Your task to perform on an android device: open the mobile data screen to see how much data has been used Image 0: 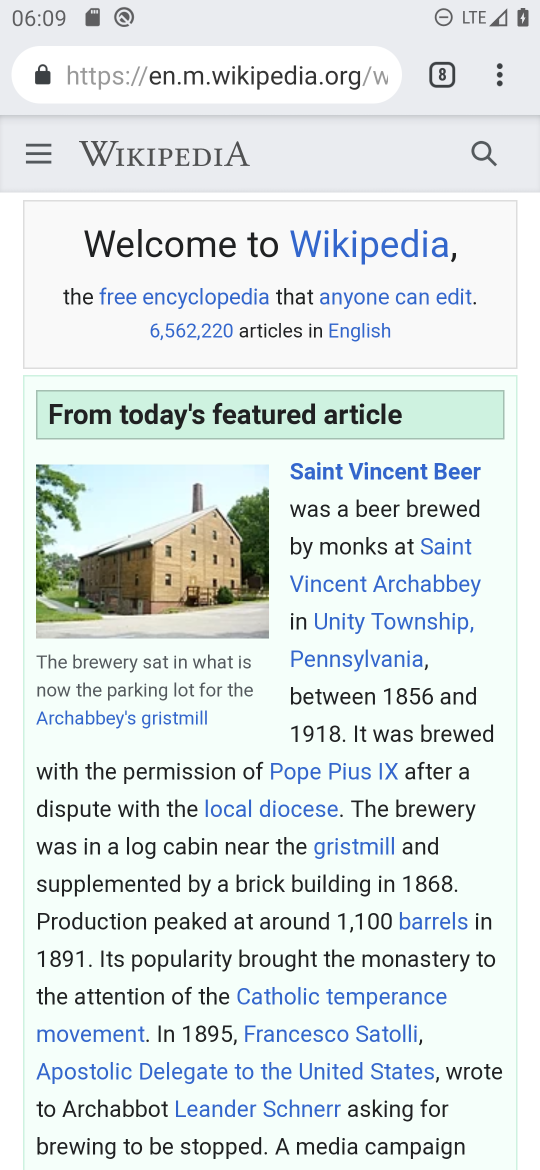
Step 0: press home button
Your task to perform on an android device: open the mobile data screen to see how much data has been used Image 1: 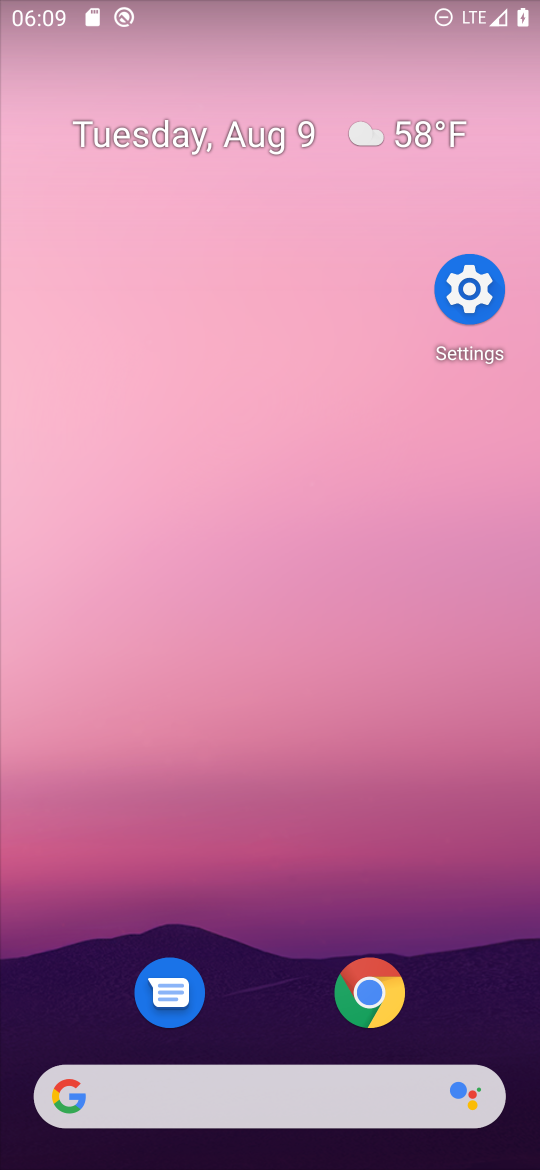
Step 1: drag from (280, 1106) to (304, 245)
Your task to perform on an android device: open the mobile data screen to see how much data has been used Image 2: 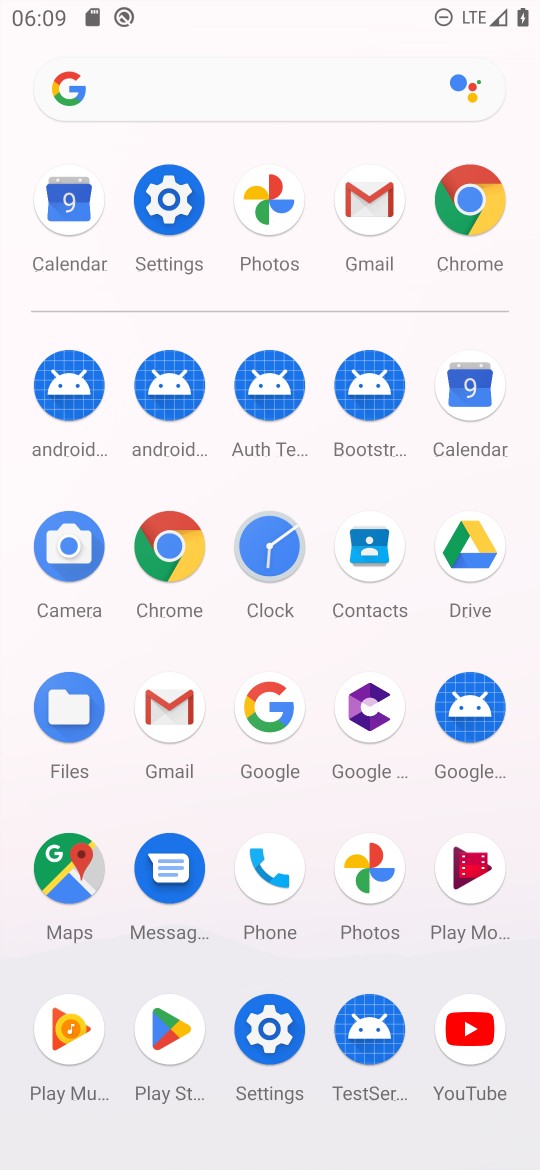
Step 2: click (177, 192)
Your task to perform on an android device: open the mobile data screen to see how much data has been used Image 3: 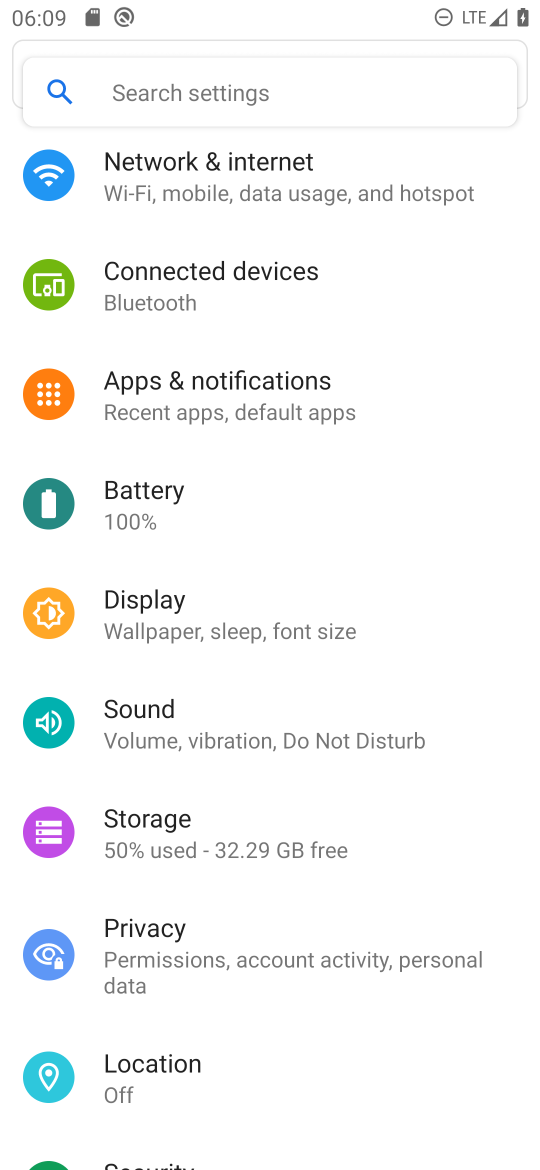
Step 3: click (290, 195)
Your task to perform on an android device: open the mobile data screen to see how much data has been used Image 4: 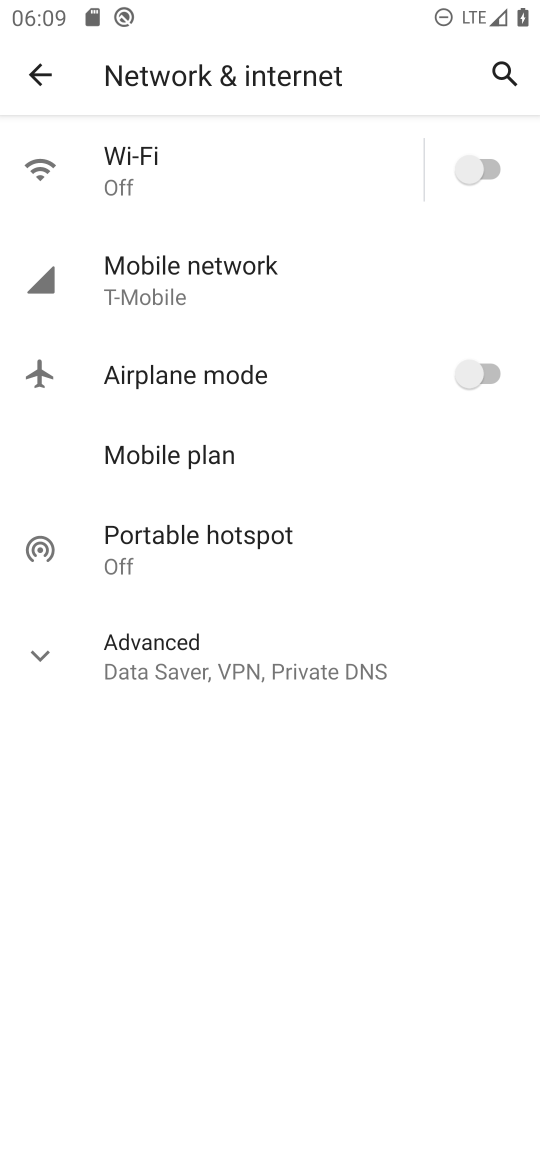
Step 4: click (240, 267)
Your task to perform on an android device: open the mobile data screen to see how much data has been used Image 5: 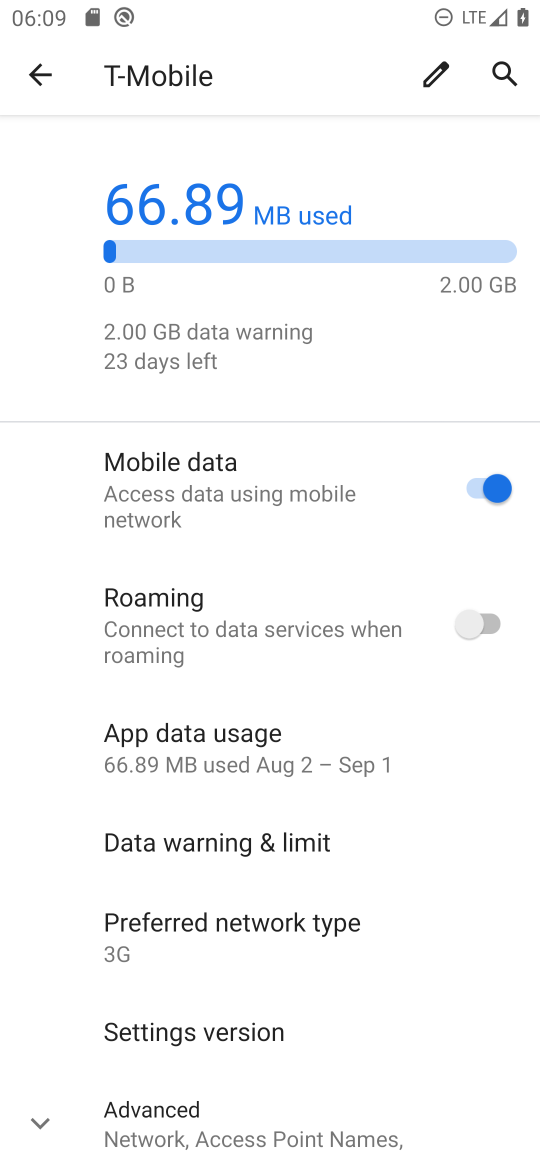
Step 5: task complete